Your task to perform on an android device: change the clock display to analog Image 0: 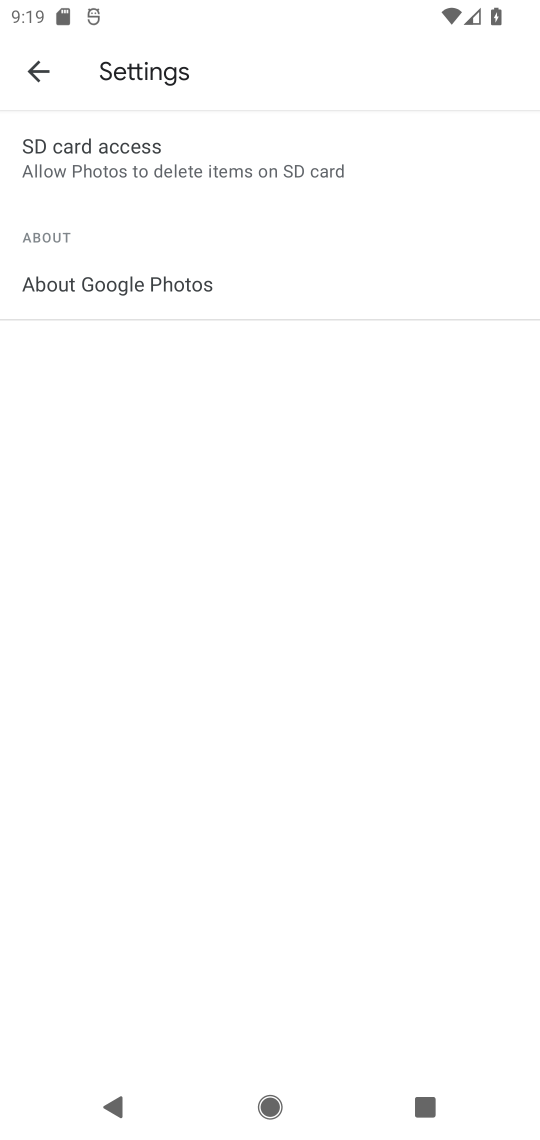
Step 0: press home button
Your task to perform on an android device: change the clock display to analog Image 1: 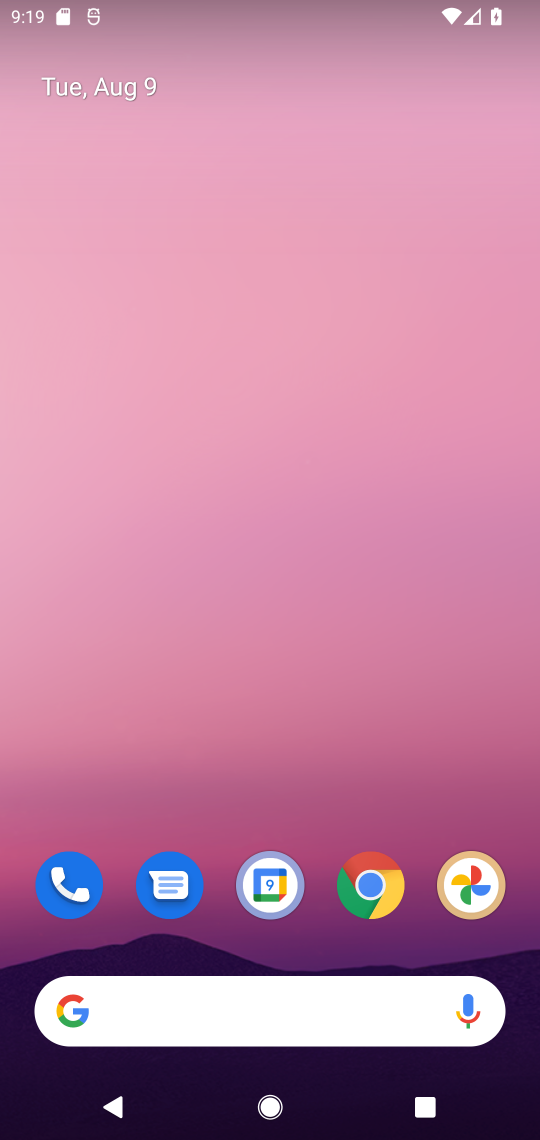
Step 1: drag from (279, 988) to (277, 274)
Your task to perform on an android device: change the clock display to analog Image 2: 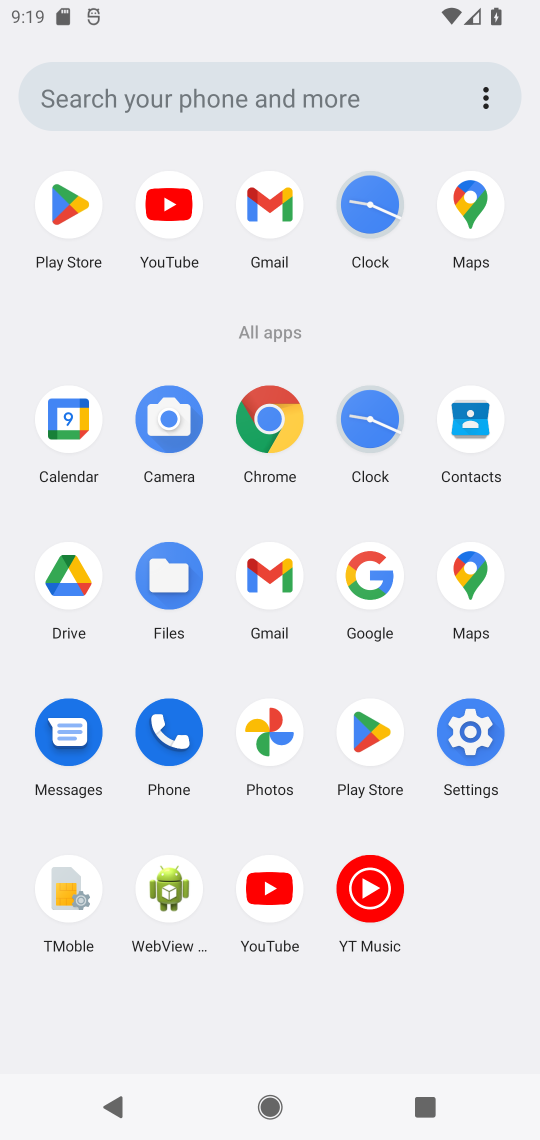
Step 2: click (378, 410)
Your task to perform on an android device: change the clock display to analog Image 3: 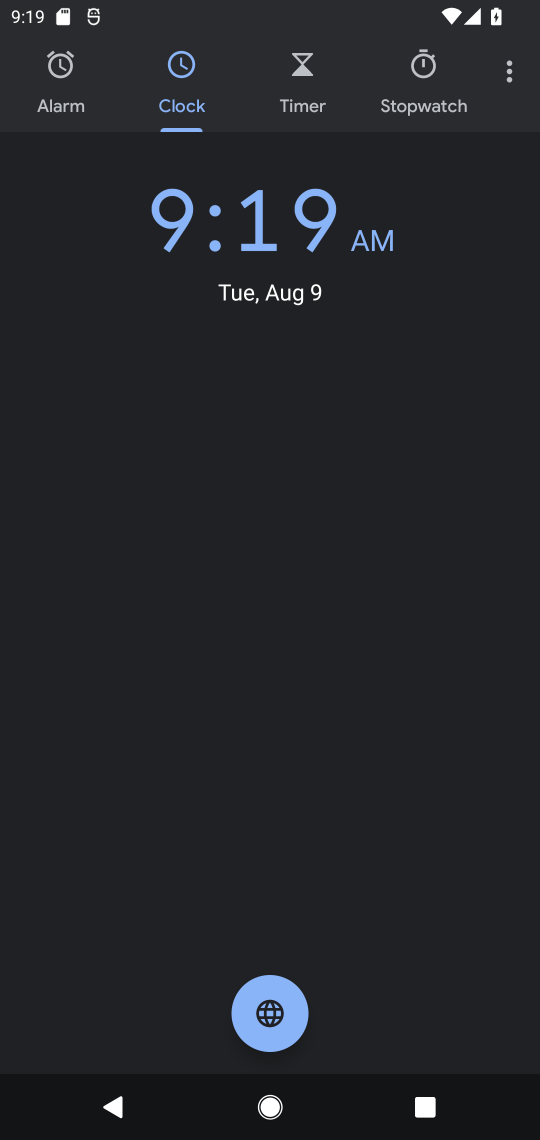
Step 3: click (496, 67)
Your task to perform on an android device: change the clock display to analog Image 4: 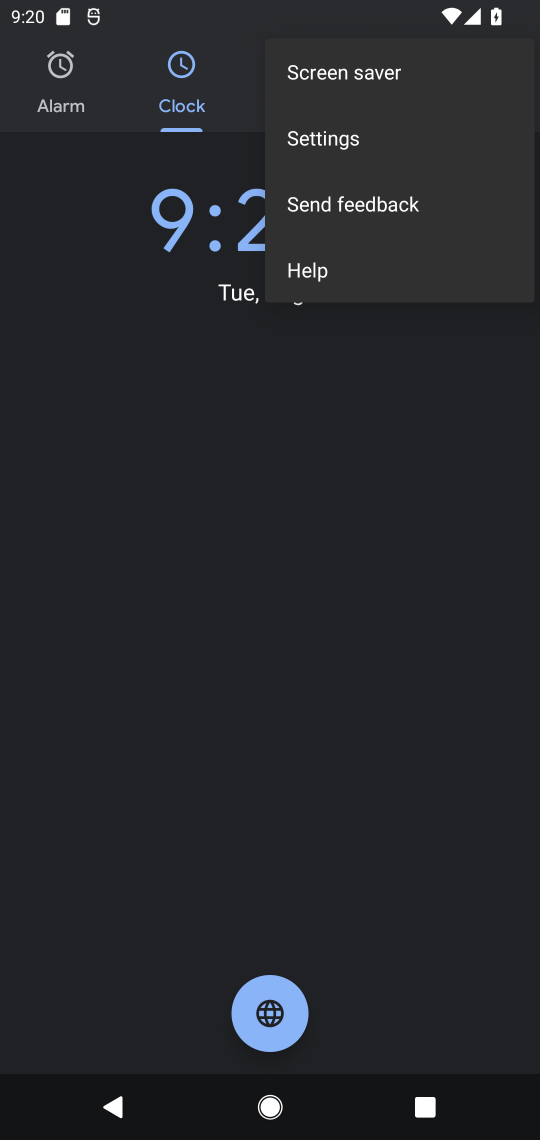
Step 4: click (359, 148)
Your task to perform on an android device: change the clock display to analog Image 5: 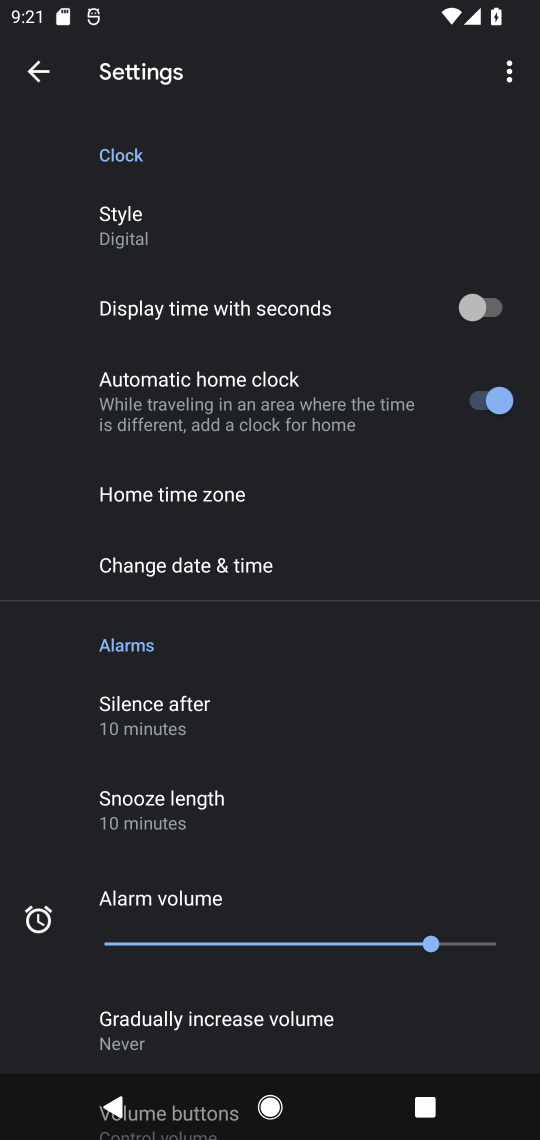
Step 5: click (254, 242)
Your task to perform on an android device: change the clock display to analog Image 6: 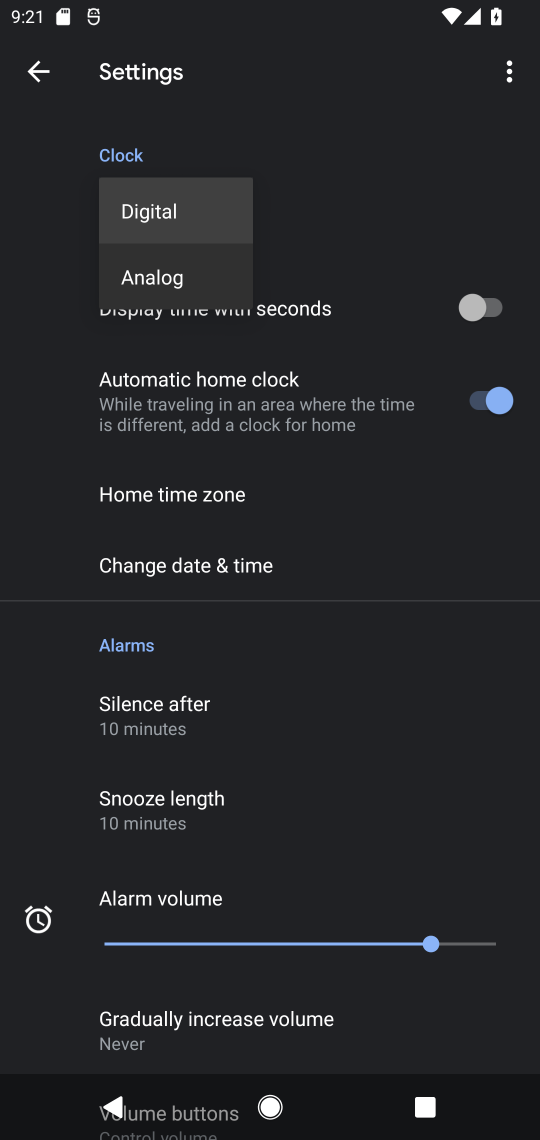
Step 6: click (154, 279)
Your task to perform on an android device: change the clock display to analog Image 7: 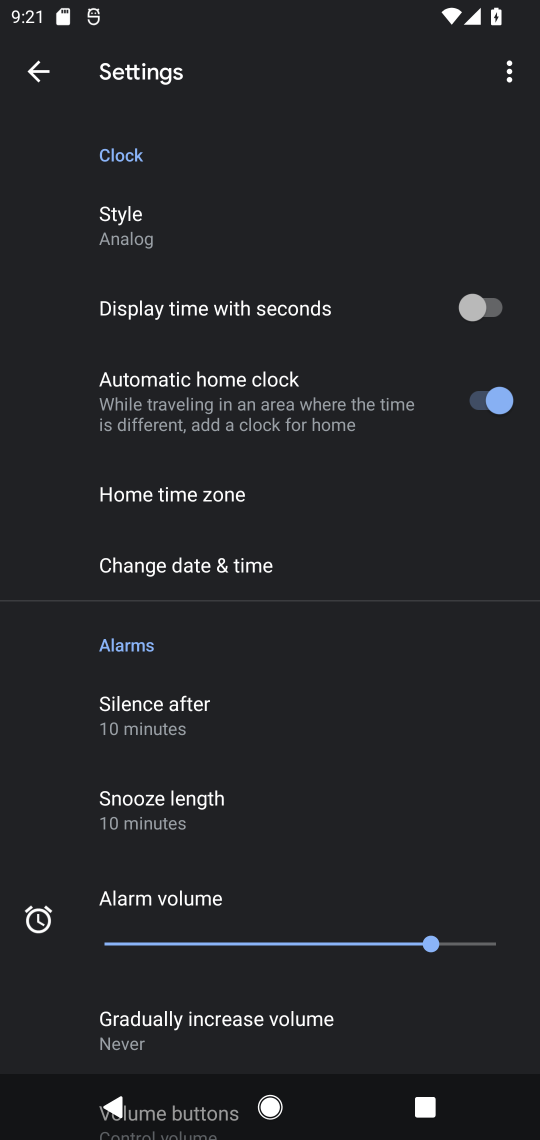
Step 7: task complete